Your task to perform on an android device: change the upload size in google photos Image 0: 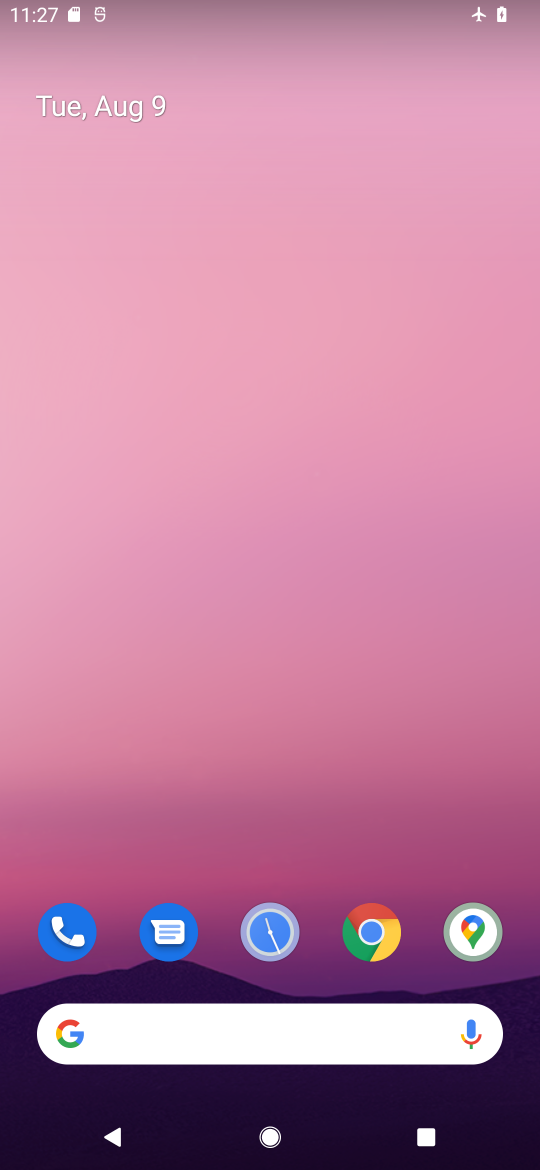
Step 0: drag from (242, 907) to (266, 1)
Your task to perform on an android device: change the upload size in google photos Image 1: 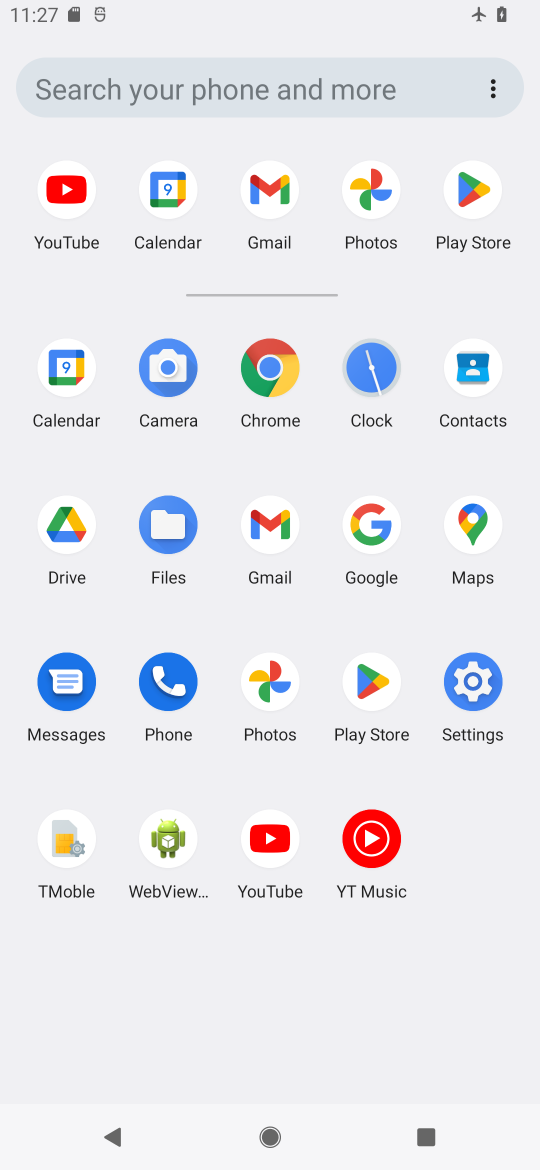
Step 1: click (266, 714)
Your task to perform on an android device: change the upload size in google photos Image 2: 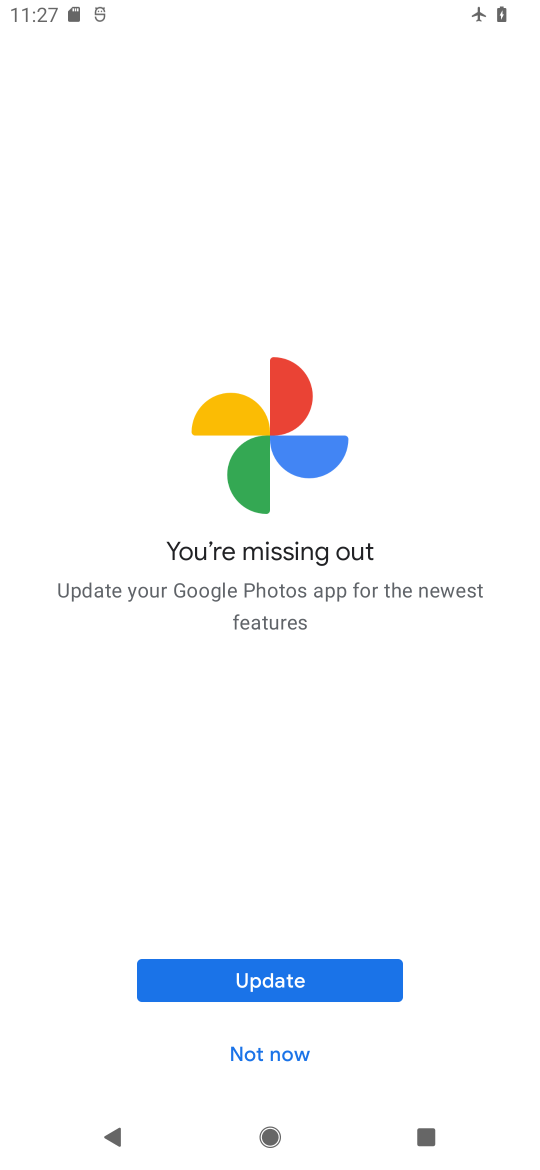
Step 2: click (270, 1046)
Your task to perform on an android device: change the upload size in google photos Image 3: 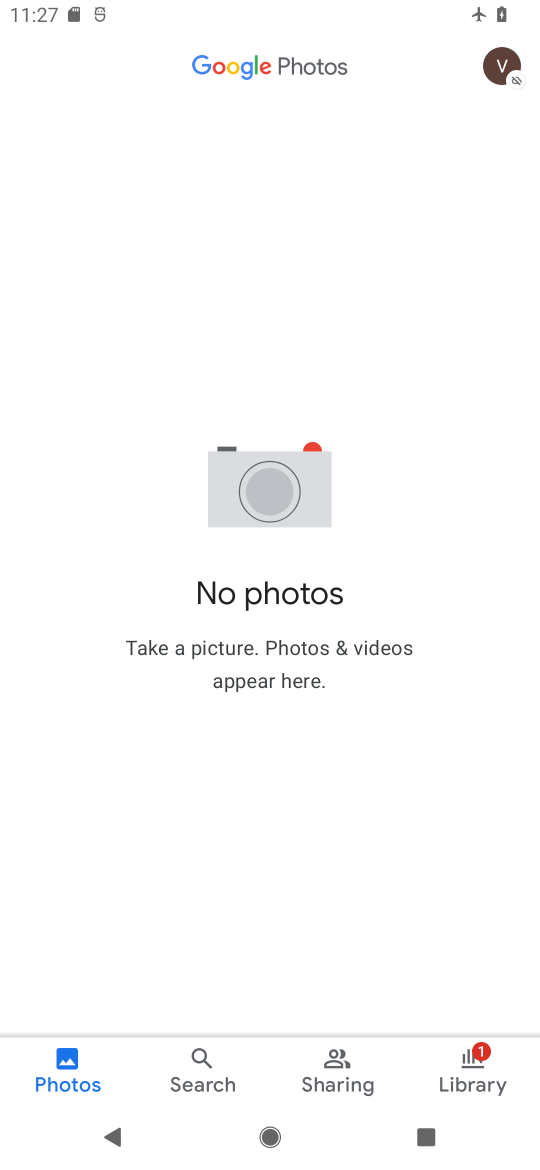
Step 3: click (512, 45)
Your task to perform on an android device: change the upload size in google photos Image 4: 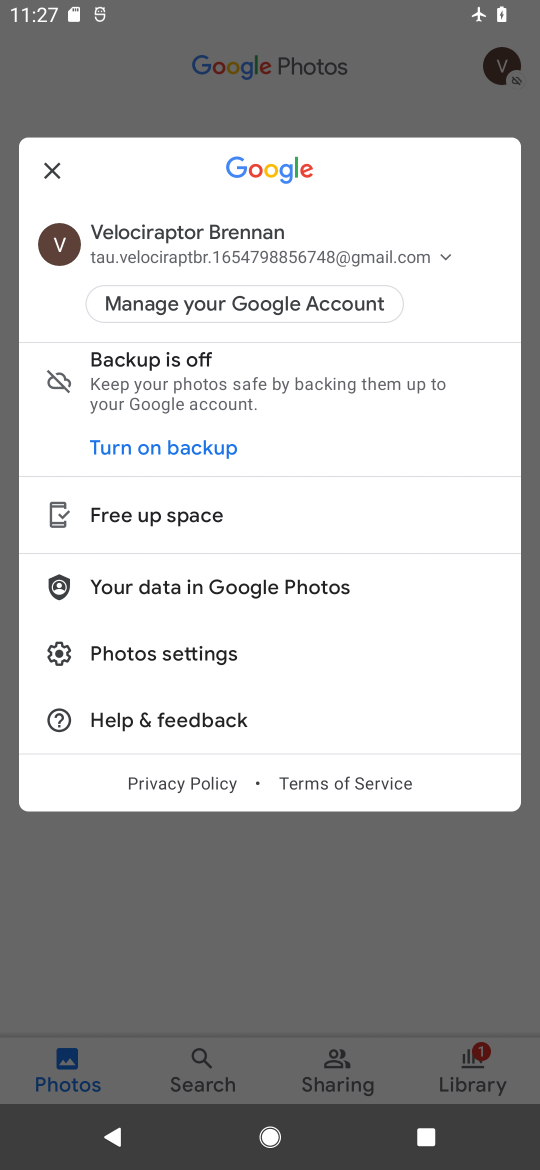
Step 4: click (208, 650)
Your task to perform on an android device: change the upload size in google photos Image 5: 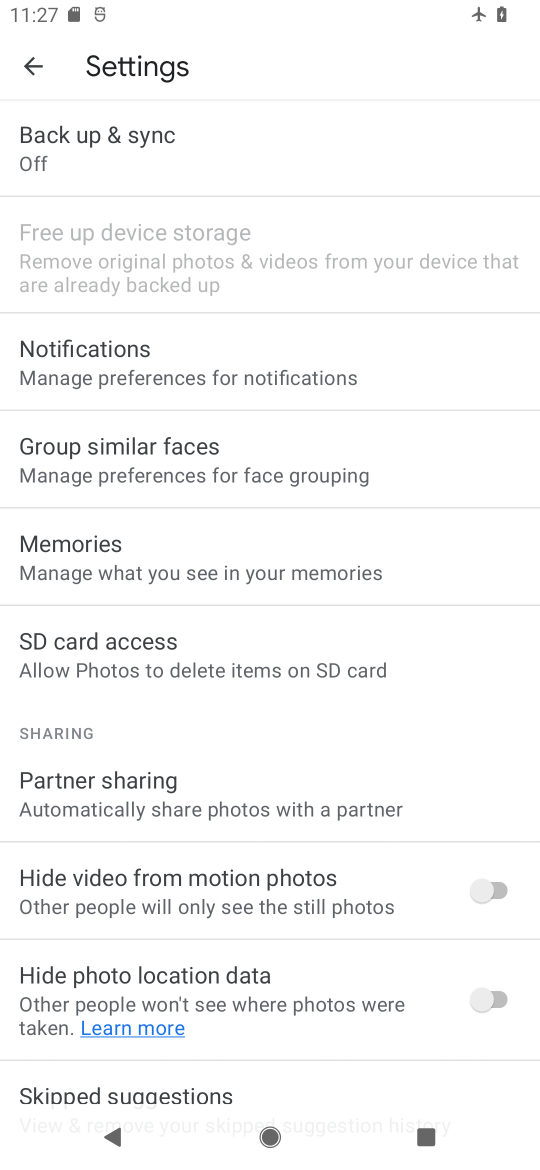
Step 5: click (123, 159)
Your task to perform on an android device: change the upload size in google photos Image 6: 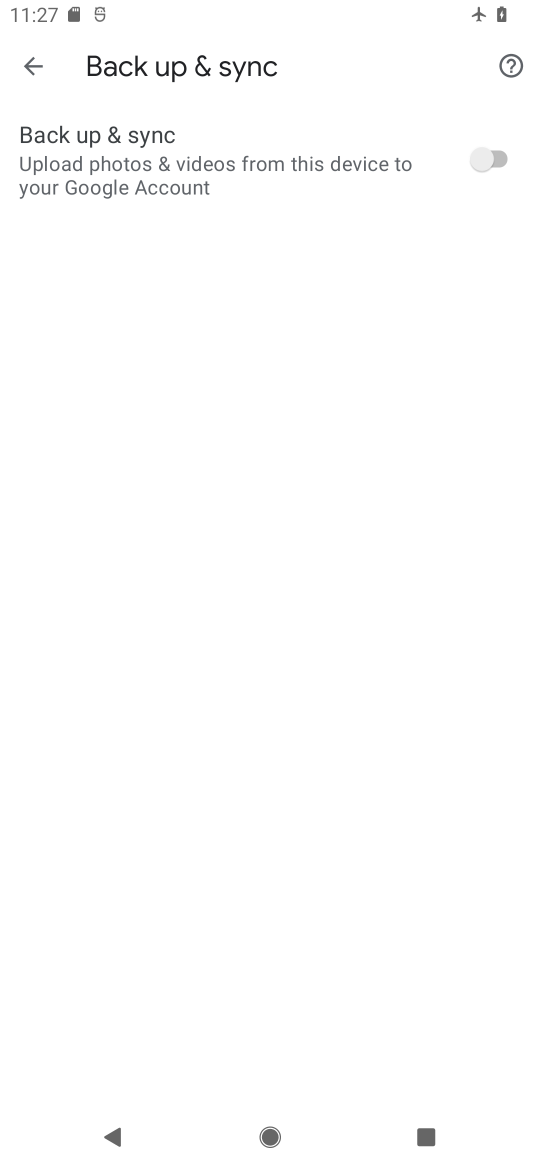
Step 6: click (431, 164)
Your task to perform on an android device: change the upload size in google photos Image 7: 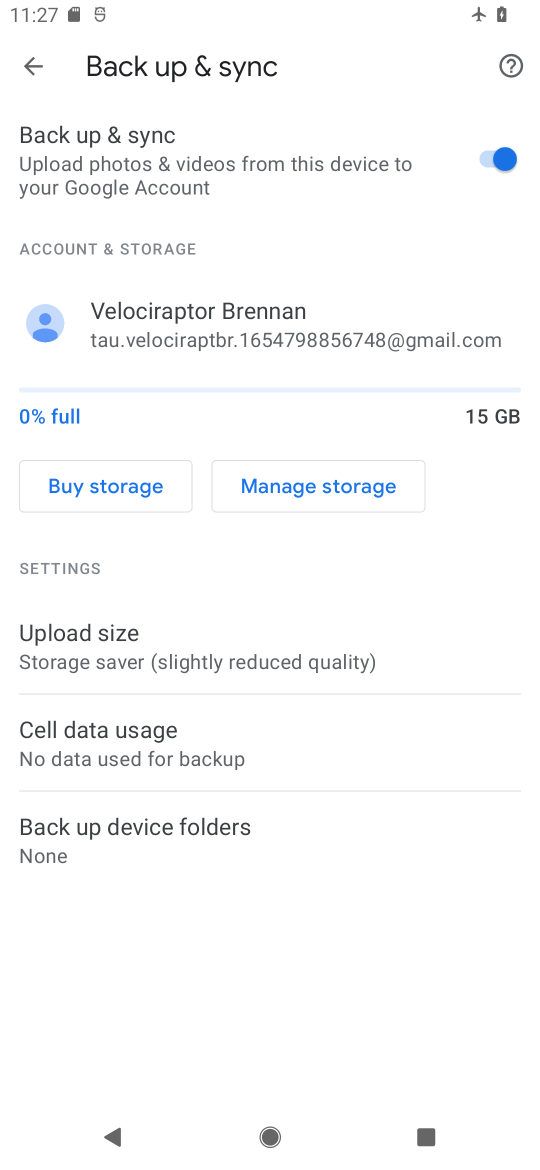
Step 7: click (126, 654)
Your task to perform on an android device: change the upload size in google photos Image 8: 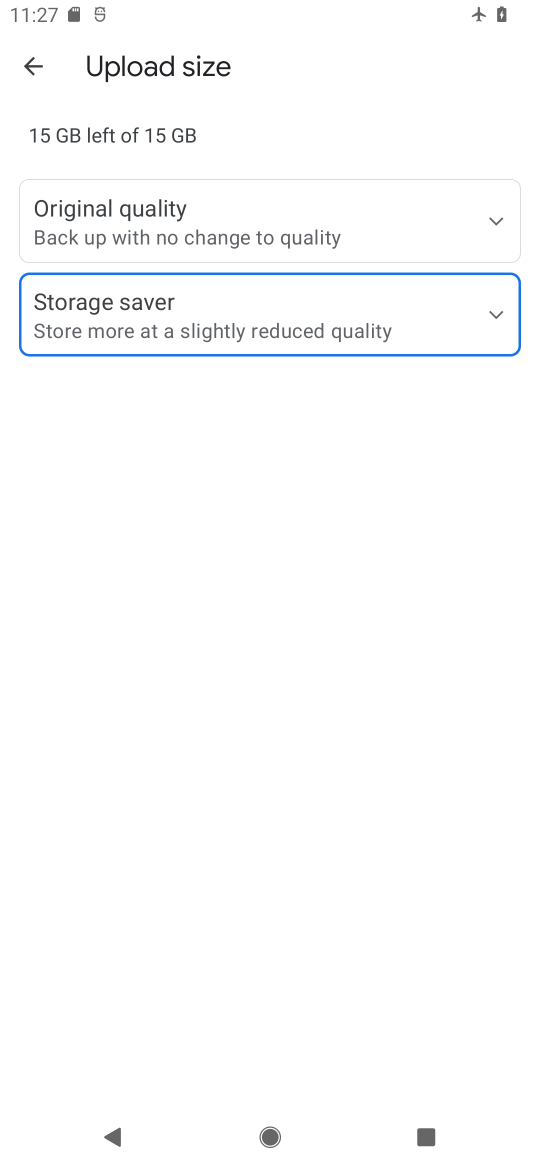
Step 8: click (97, 236)
Your task to perform on an android device: change the upload size in google photos Image 9: 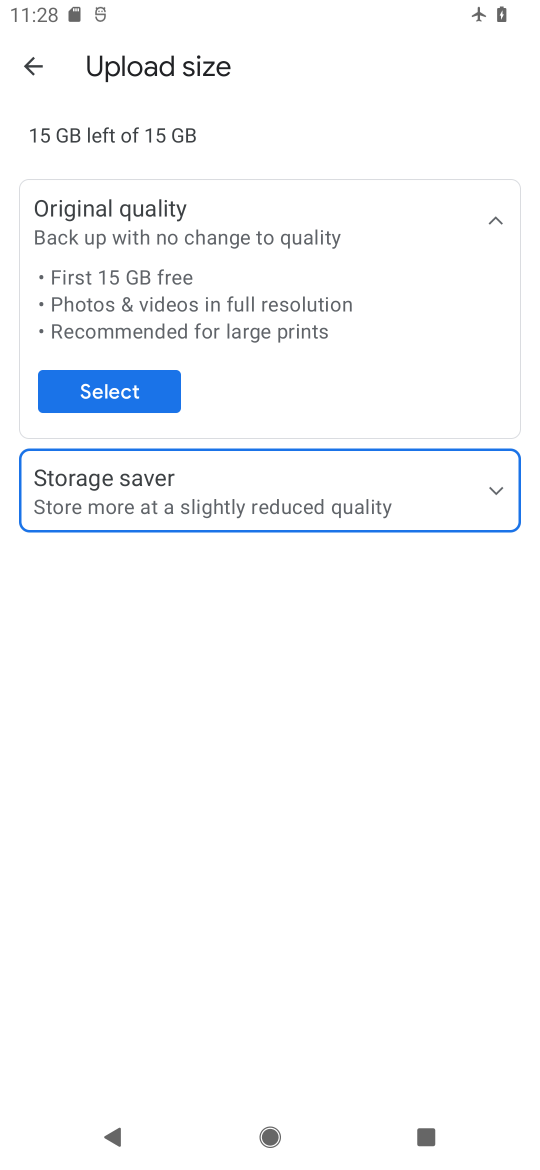
Step 9: click (137, 392)
Your task to perform on an android device: change the upload size in google photos Image 10: 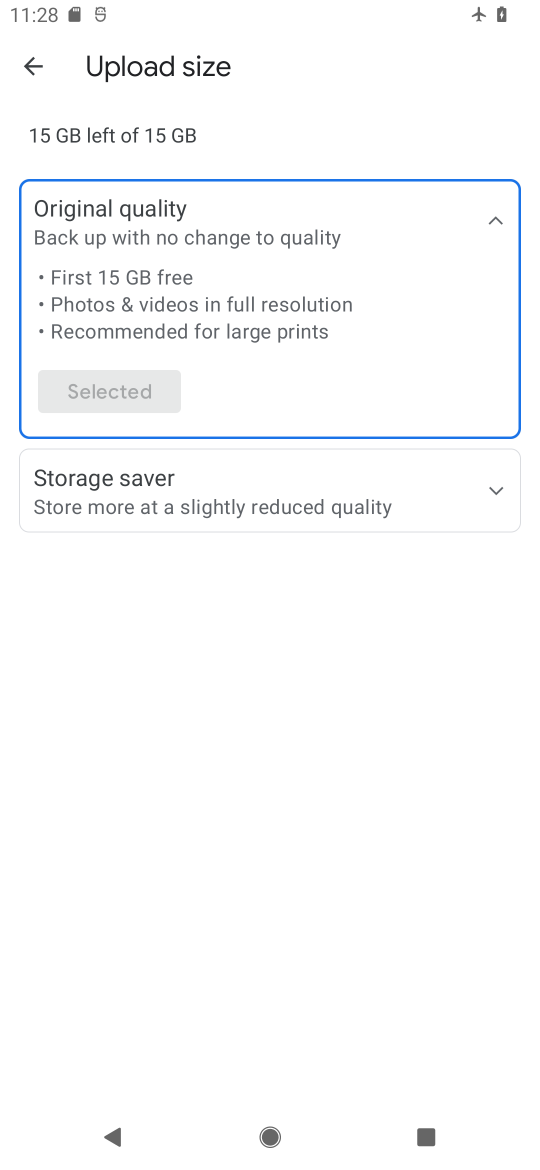
Step 10: task complete